Your task to perform on an android device: change notifications settings Image 0: 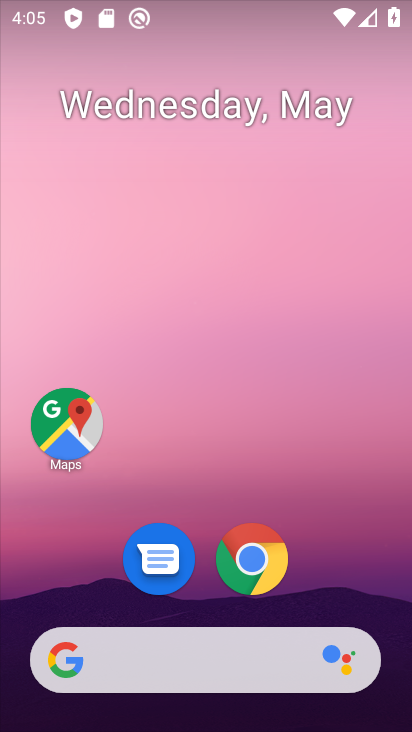
Step 0: drag from (328, 553) to (221, 93)
Your task to perform on an android device: change notifications settings Image 1: 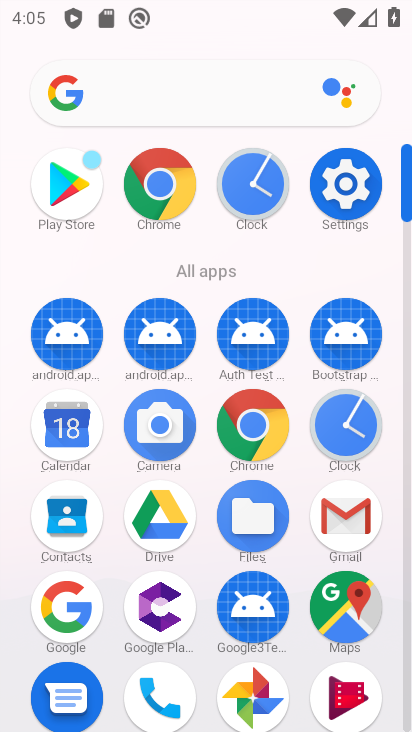
Step 1: click (333, 185)
Your task to perform on an android device: change notifications settings Image 2: 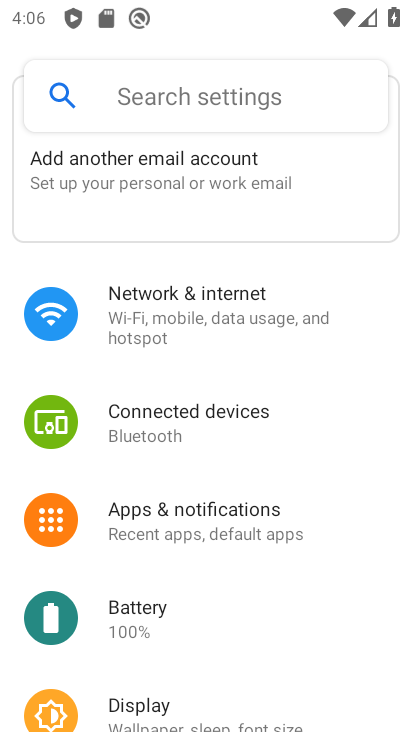
Step 2: click (235, 494)
Your task to perform on an android device: change notifications settings Image 3: 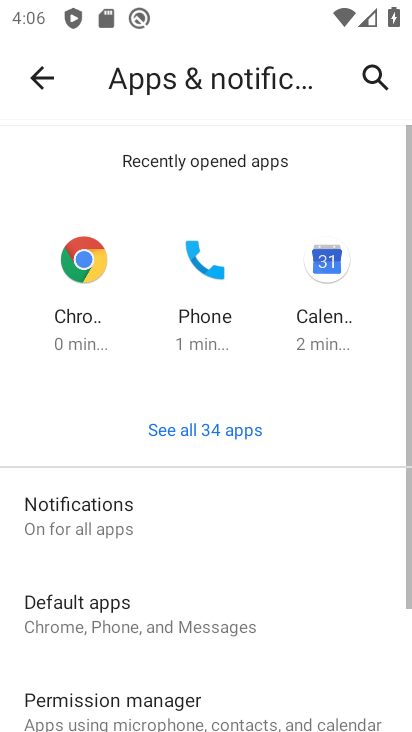
Step 3: click (217, 529)
Your task to perform on an android device: change notifications settings Image 4: 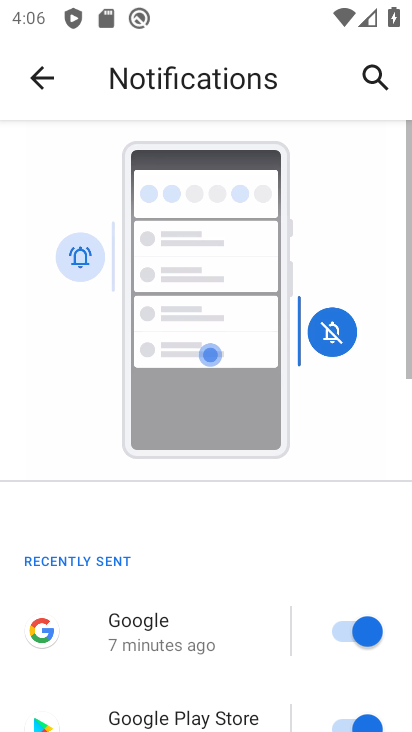
Step 4: drag from (306, 670) to (274, 369)
Your task to perform on an android device: change notifications settings Image 5: 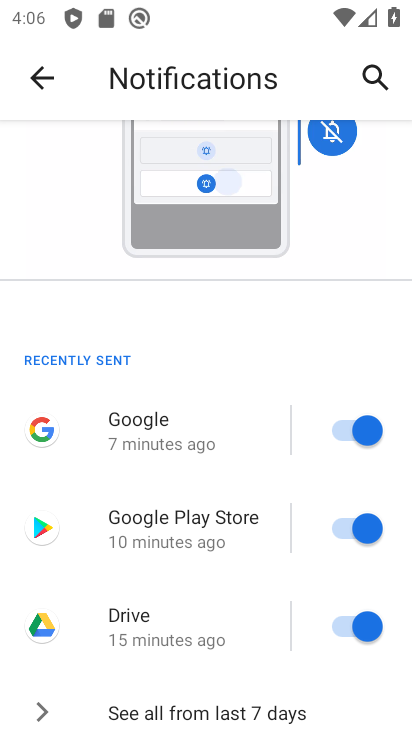
Step 5: click (367, 423)
Your task to perform on an android device: change notifications settings Image 6: 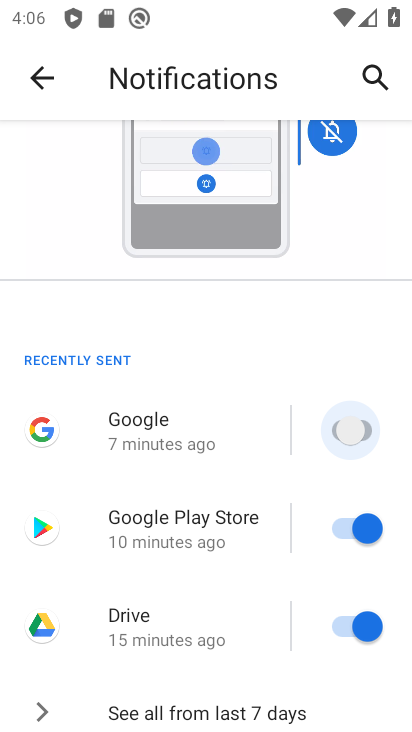
Step 6: click (357, 539)
Your task to perform on an android device: change notifications settings Image 7: 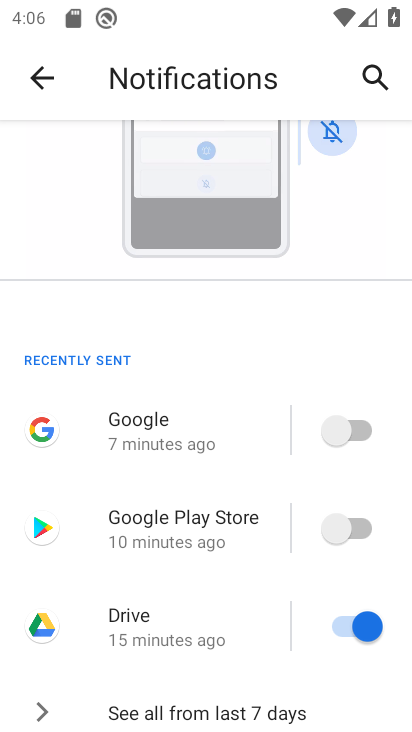
Step 7: click (362, 641)
Your task to perform on an android device: change notifications settings Image 8: 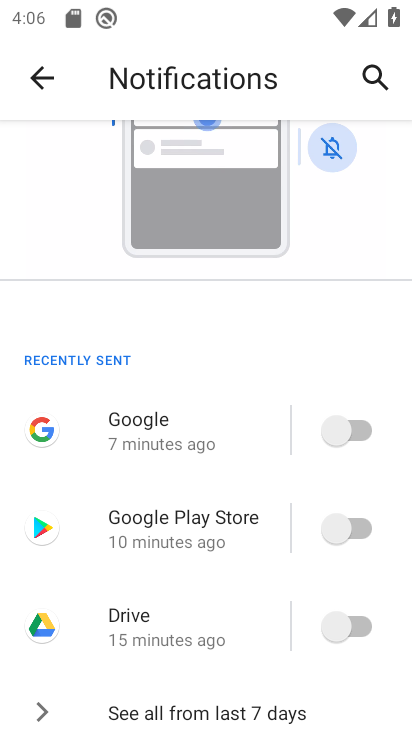
Step 8: task complete